Your task to perform on an android device: Turn off the flashlight Image 0: 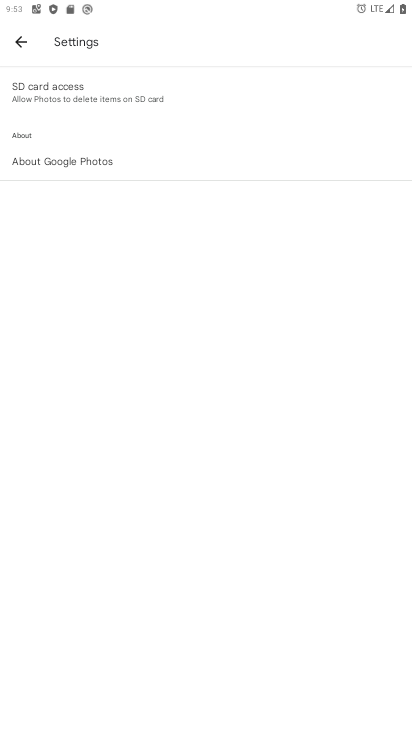
Step 0: press home button
Your task to perform on an android device: Turn off the flashlight Image 1: 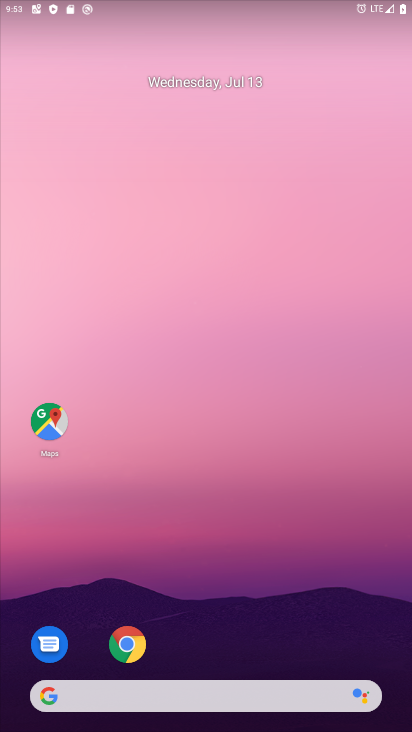
Step 1: drag from (242, 704) to (231, 250)
Your task to perform on an android device: Turn off the flashlight Image 2: 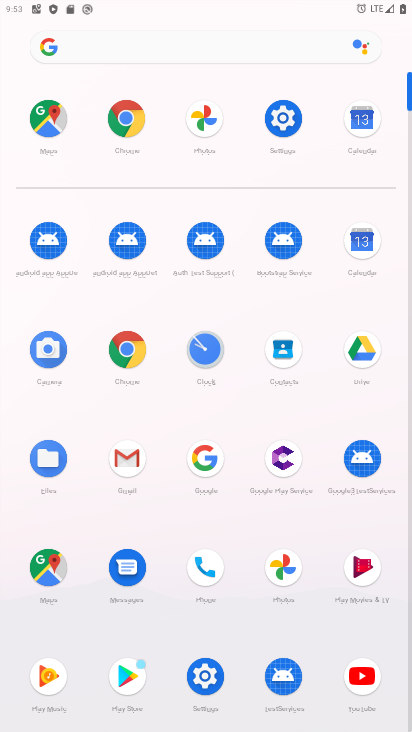
Step 2: click (290, 115)
Your task to perform on an android device: Turn off the flashlight Image 3: 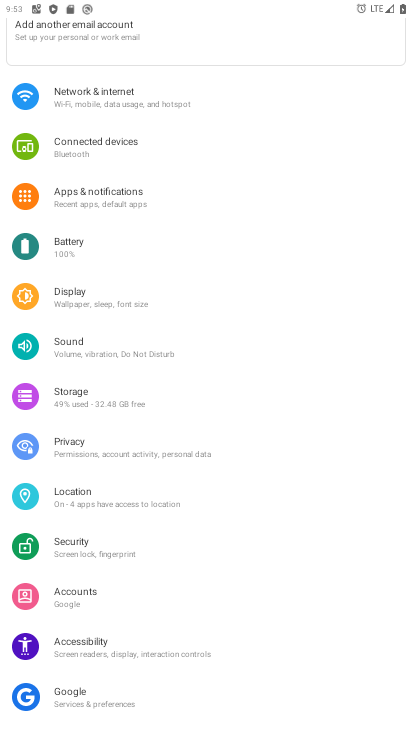
Step 3: task complete